Your task to perform on an android device: toggle airplane mode Image 0: 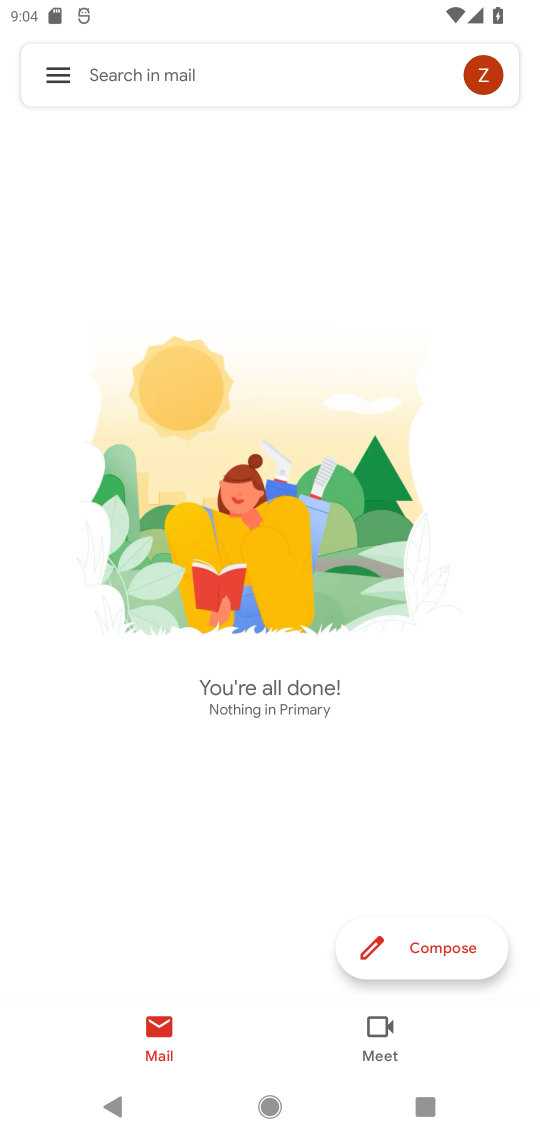
Step 0: drag from (288, 16) to (270, 1046)
Your task to perform on an android device: toggle airplane mode Image 1: 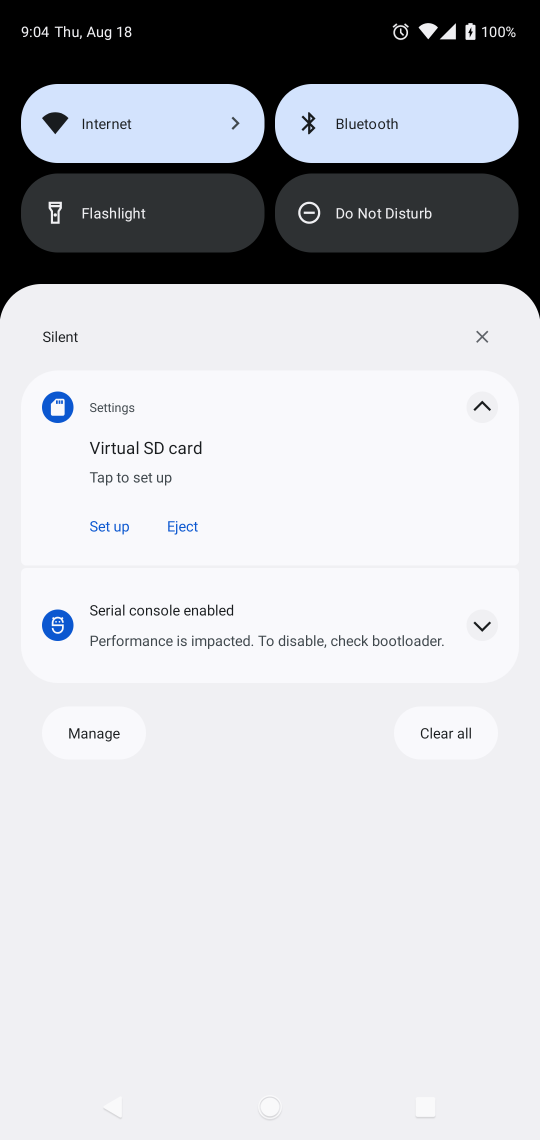
Step 1: drag from (269, 52) to (299, 940)
Your task to perform on an android device: toggle airplane mode Image 2: 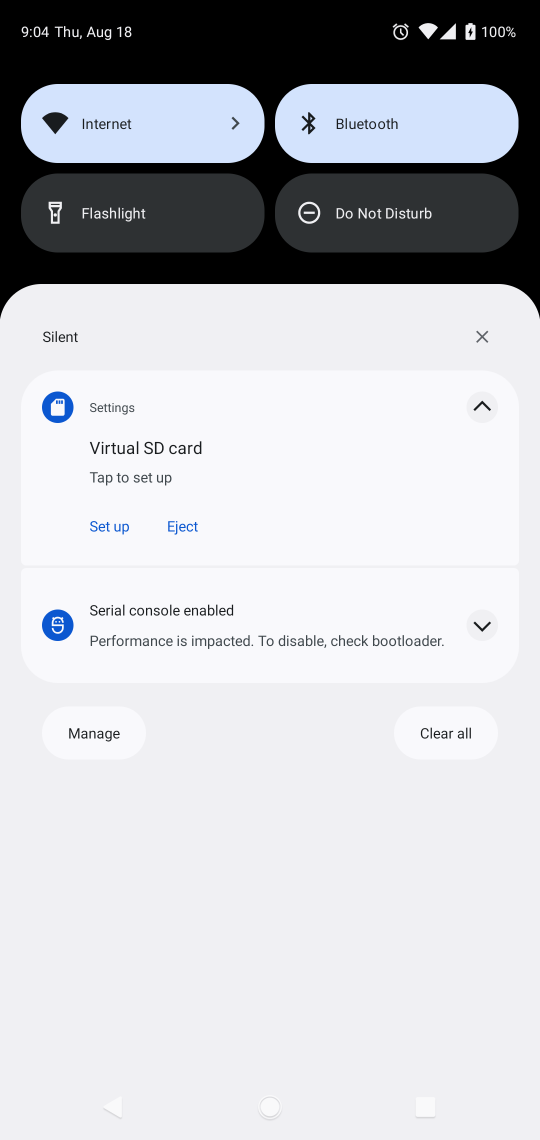
Step 2: drag from (250, 329) to (280, 959)
Your task to perform on an android device: toggle airplane mode Image 3: 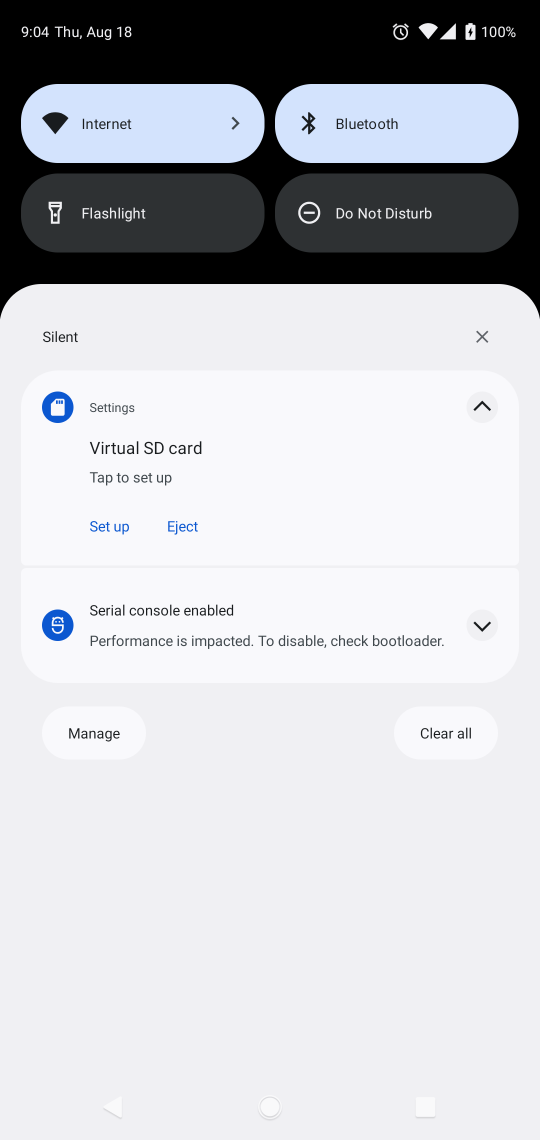
Step 3: drag from (279, 49) to (325, 903)
Your task to perform on an android device: toggle airplane mode Image 4: 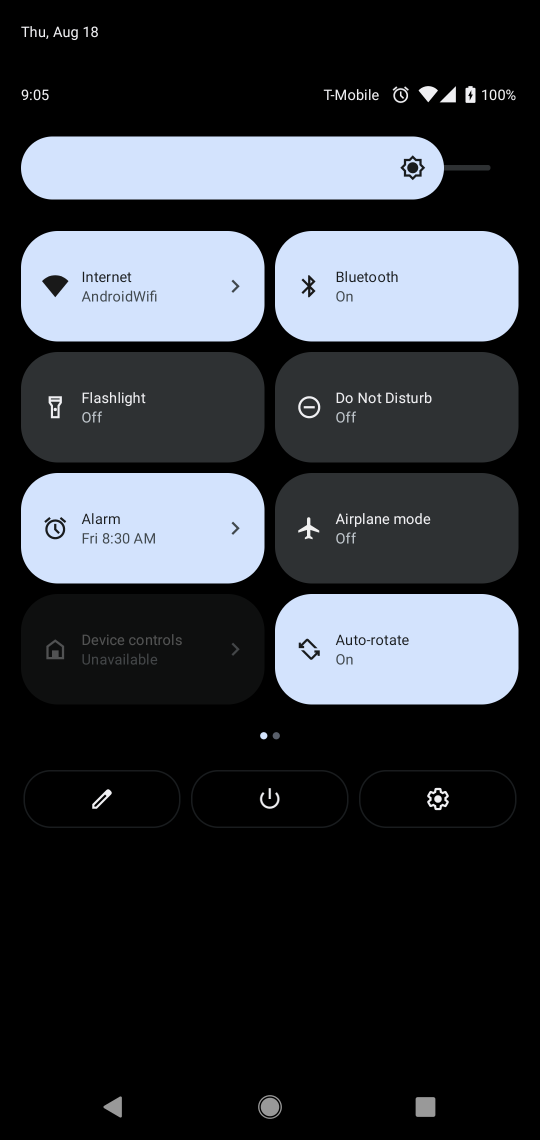
Step 4: click (414, 555)
Your task to perform on an android device: toggle airplane mode Image 5: 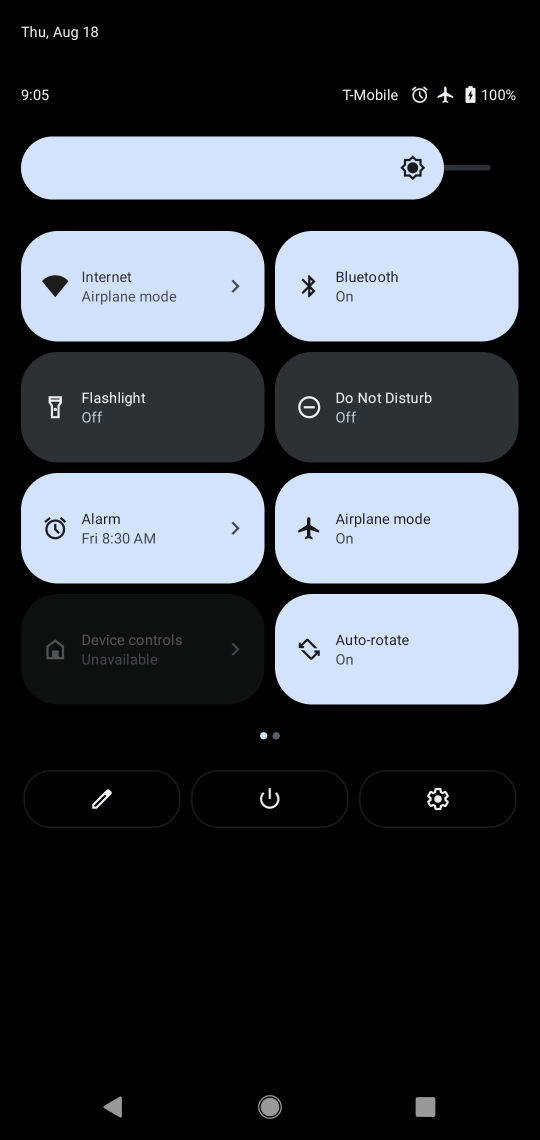
Step 5: click (414, 555)
Your task to perform on an android device: toggle airplane mode Image 6: 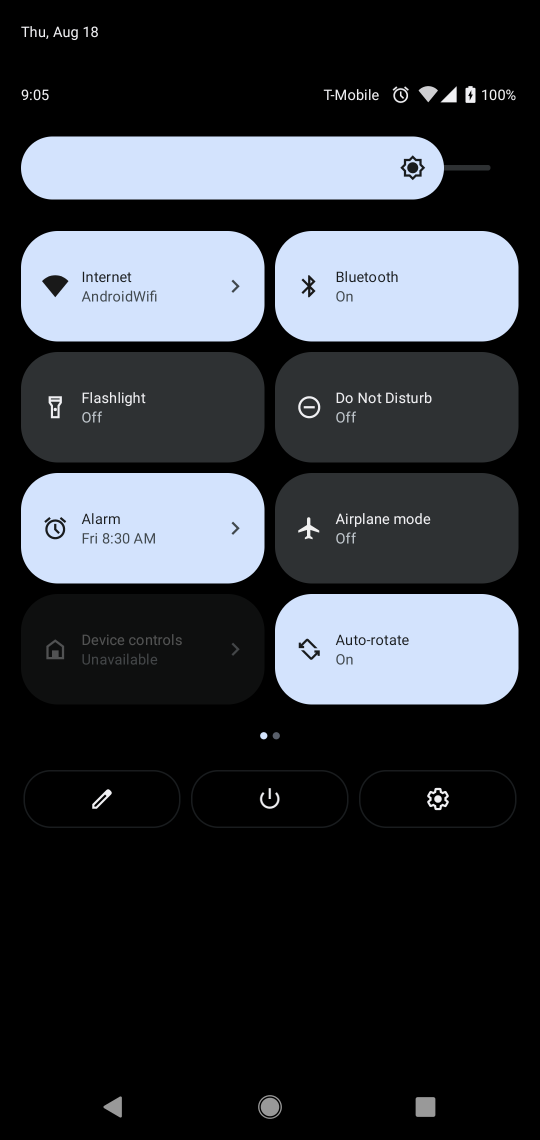
Step 6: task complete